Your task to perform on an android device: Go to Yahoo.com Image 0: 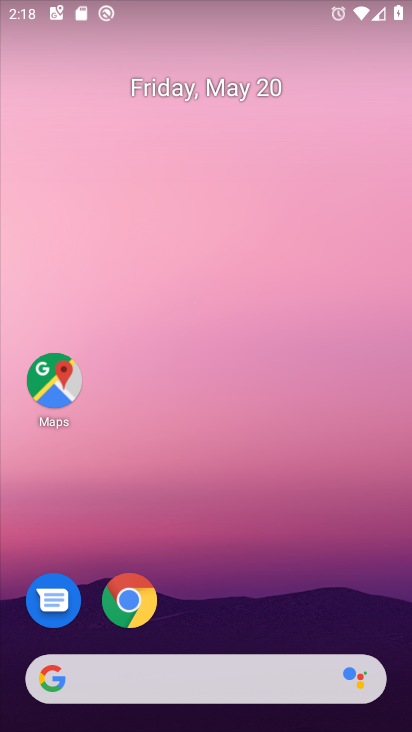
Step 0: click (127, 594)
Your task to perform on an android device: Go to Yahoo.com Image 1: 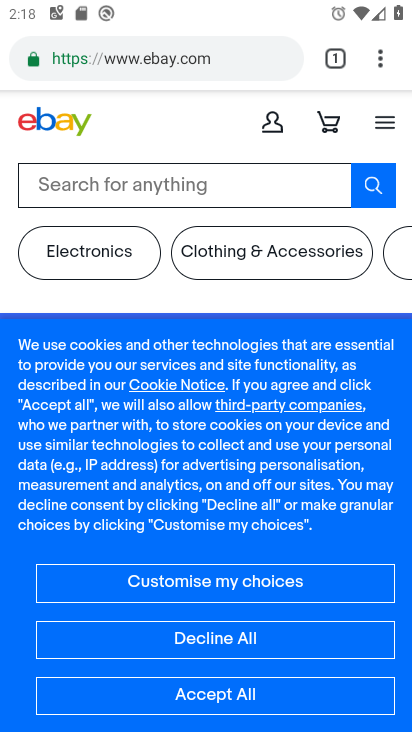
Step 1: click (215, 63)
Your task to perform on an android device: Go to Yahoo.com Image 2: 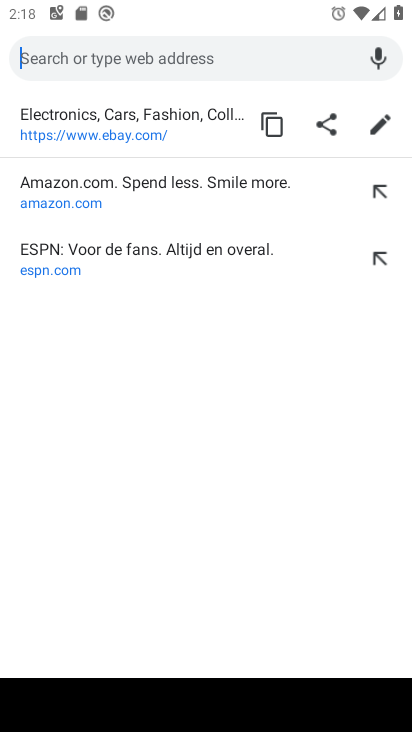
Step 2: type "yahoo.com"
Your task to perform on an android device: Go to Yahoo.com Image 3: 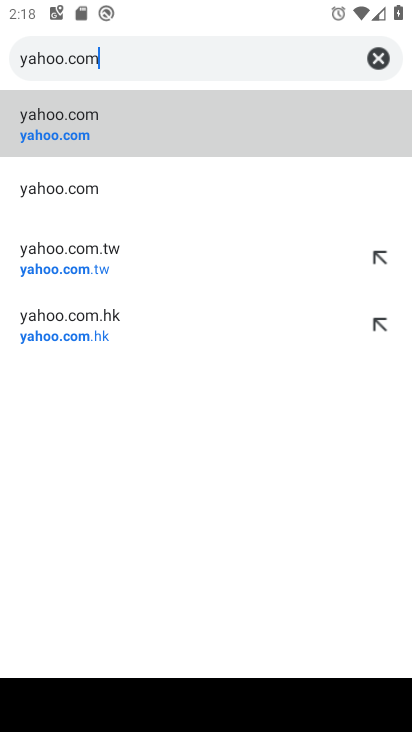
Step 3: click (57, 144)
Your task to perform on an android device: Go to Yahoo.com Image 4: 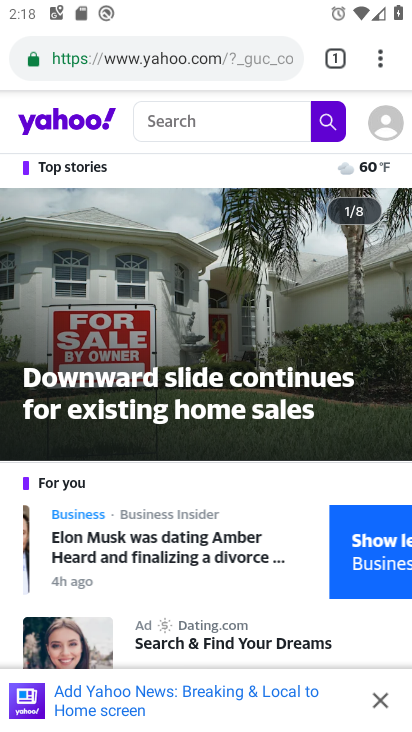
Step 4: task complete